Your task to perform on an android device: Open network settings Image 0: 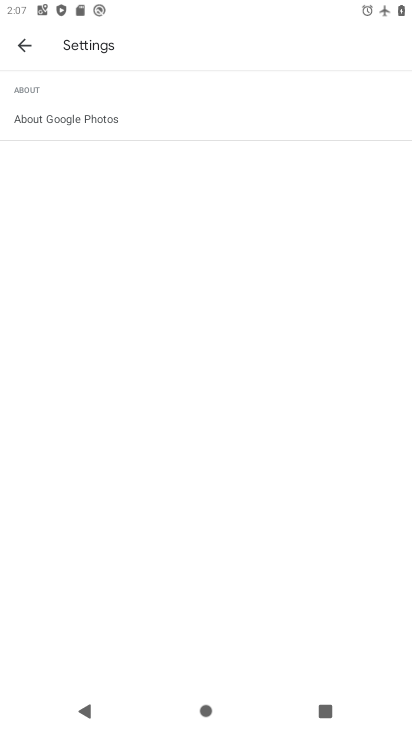
Step 0: press home button
Your task to perform on an android device: Open network settings Image 1: 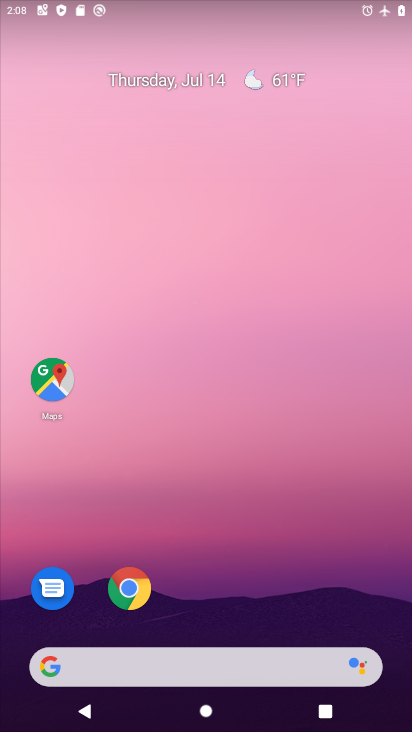
Step 1: drag from (259, 600) to (261, 286)
Your task to perform on an android device: Open network settings Image 2: 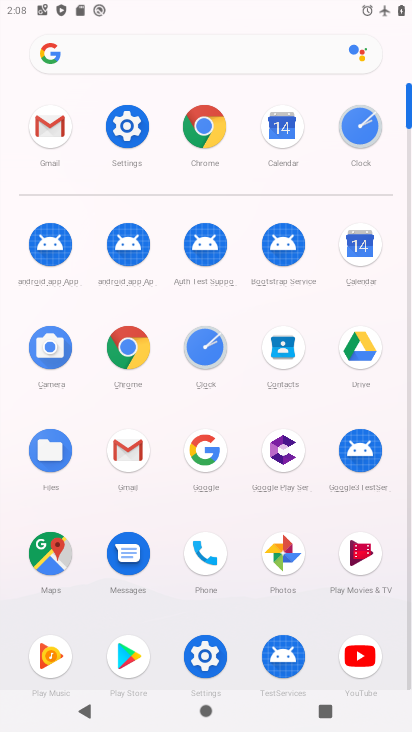
Step 2: click (122, 113)
Your task to perform on an android device: Open network settings Image 3: 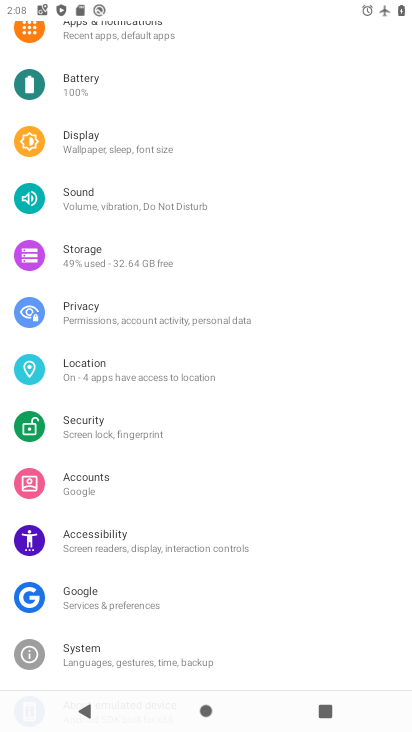
Step 3: drag from (106, 128) to (106, 674)
Your task to perform on an android device: Open network settings Image 4: 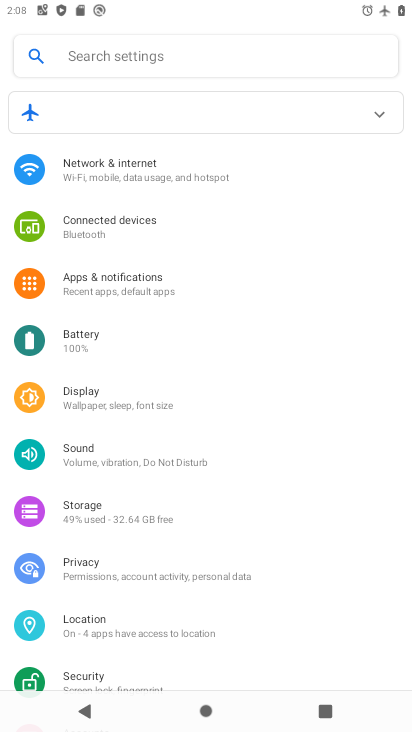
Step 4: click (92, 157)
Your task to perform on an android device: Open network settings Image 5: 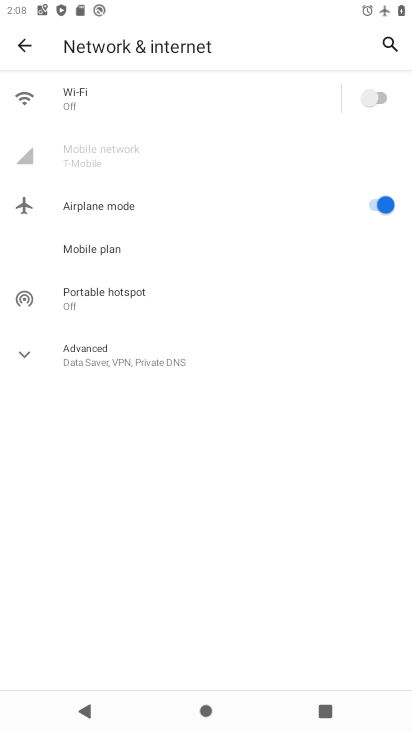
Step 5: task complete